Your task to perform on an android device: see sites visited before in the chrome app Image 0: 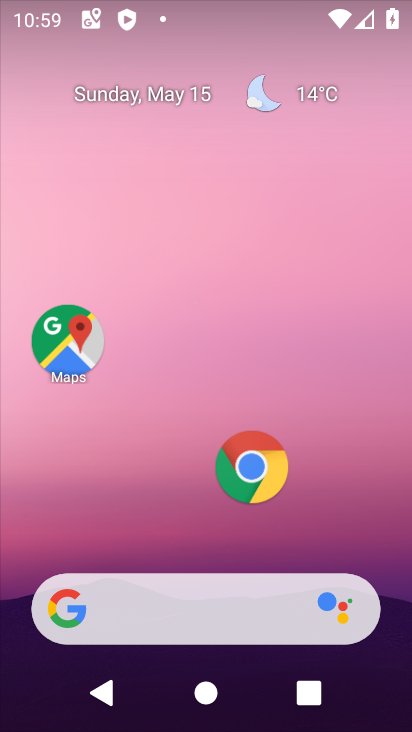
Step 0: click (222, 457)
Your task to perform on an android device: see sites visited before in the chrome app Image 1: 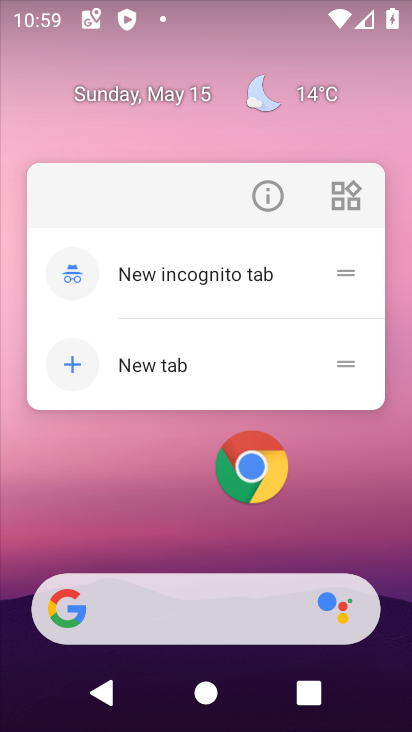
Step 1: click (273, 203)
Your task to perform on an android device: see sites visited before in the chrome app Image 2: 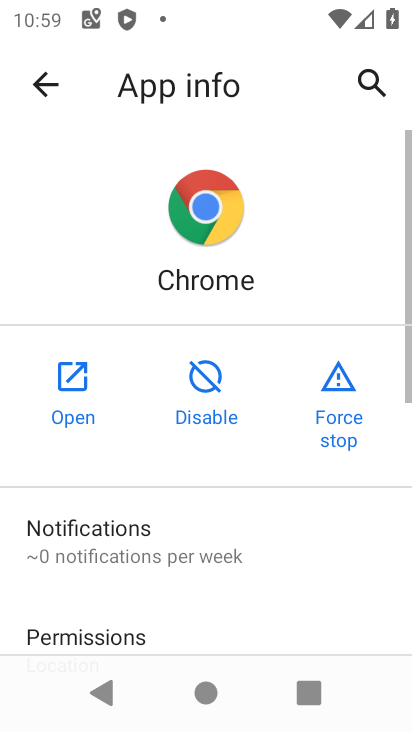
Step 2: click (68, 383)
Your task to perform on an android device: see sites visited before in the chrome app Image 3: 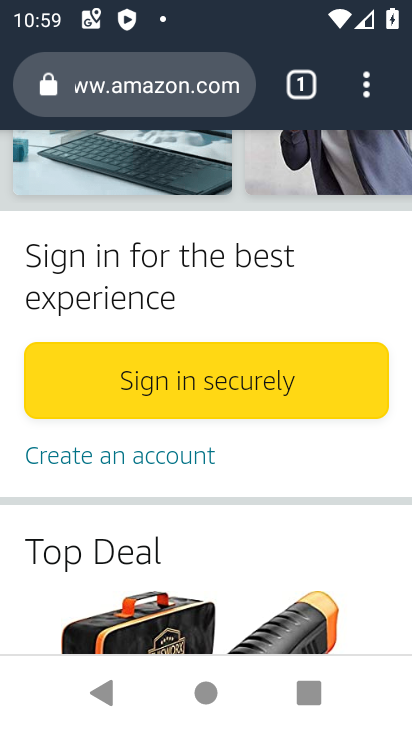
Step 3: click (355, 81)
Your task to perform on an android device: see sites visited before in the chrome app Image 4: 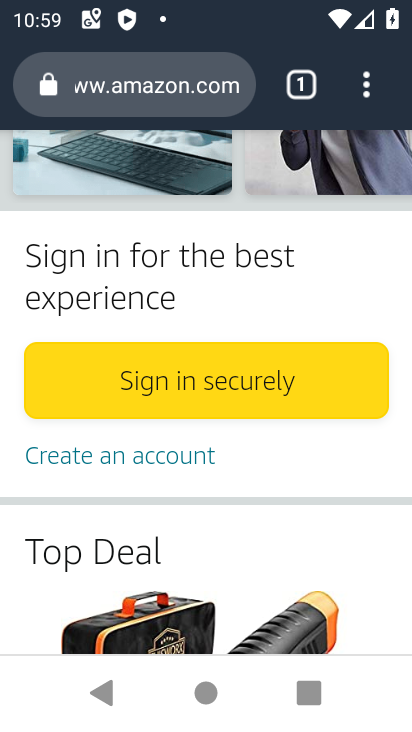
Step 4: task complete